Your task to perform on an android device: Open Android settings Image 0: 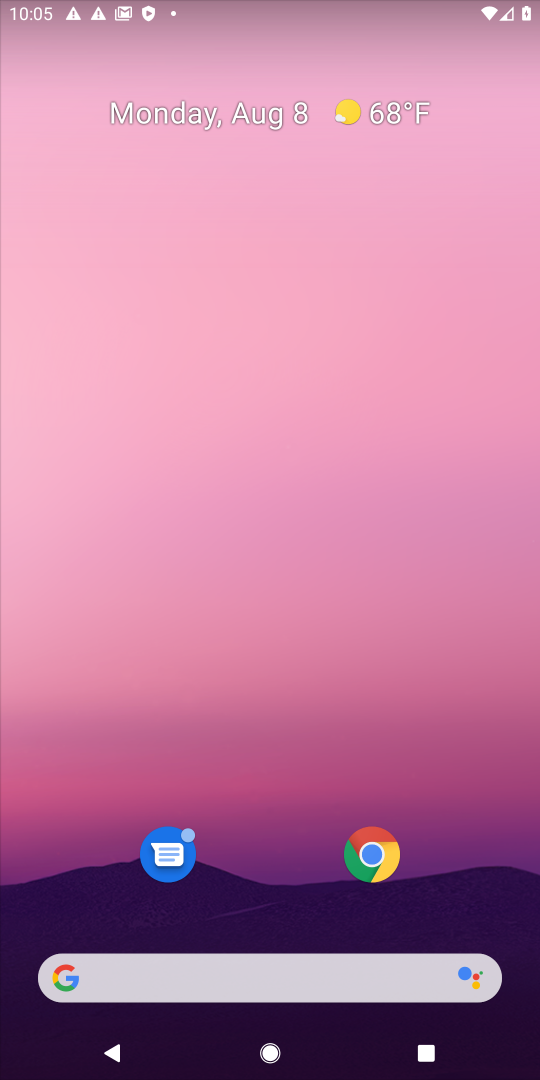
Step 0: drag from (308, 774) to (291, 326)
Your task to perform on an android device: Open Android settings Image 1: 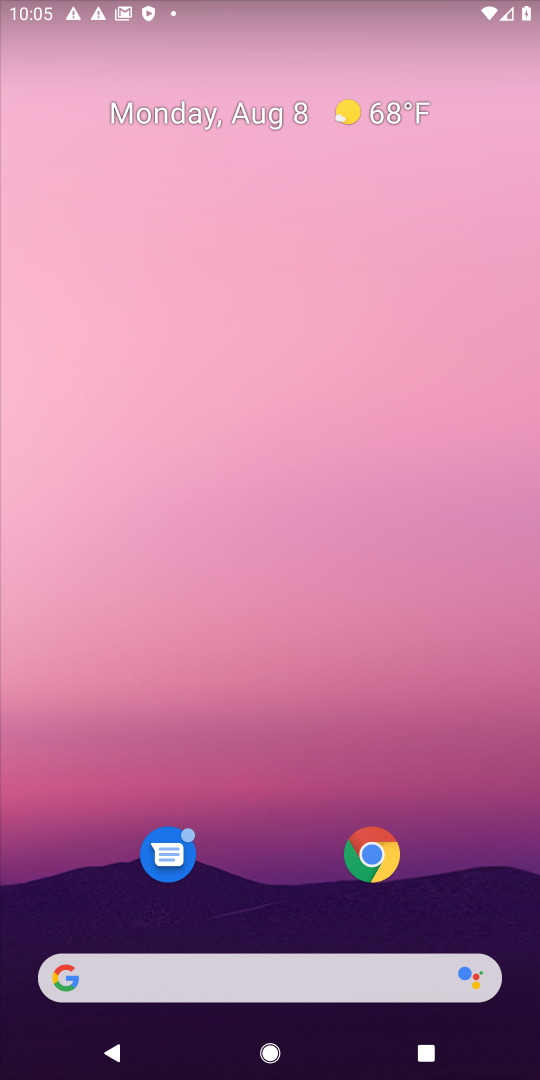
Step 1: drag from (239, 714) to (269, 294)
Your task to perform on an android device: Open Android settings Image 2: 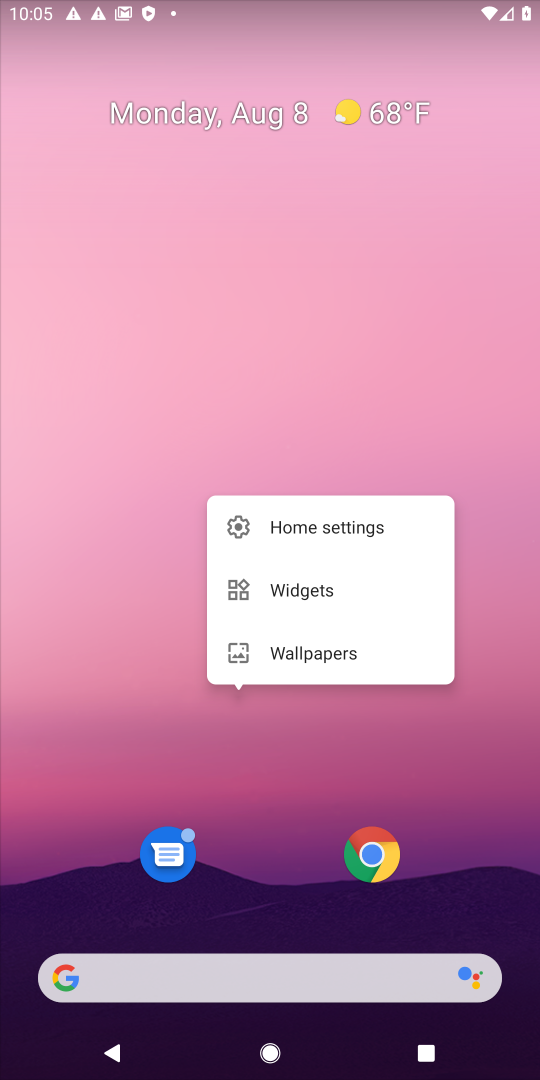
Step 2: click (294, 757)
Your task to perform on an android device: Open Android settings Image 3: 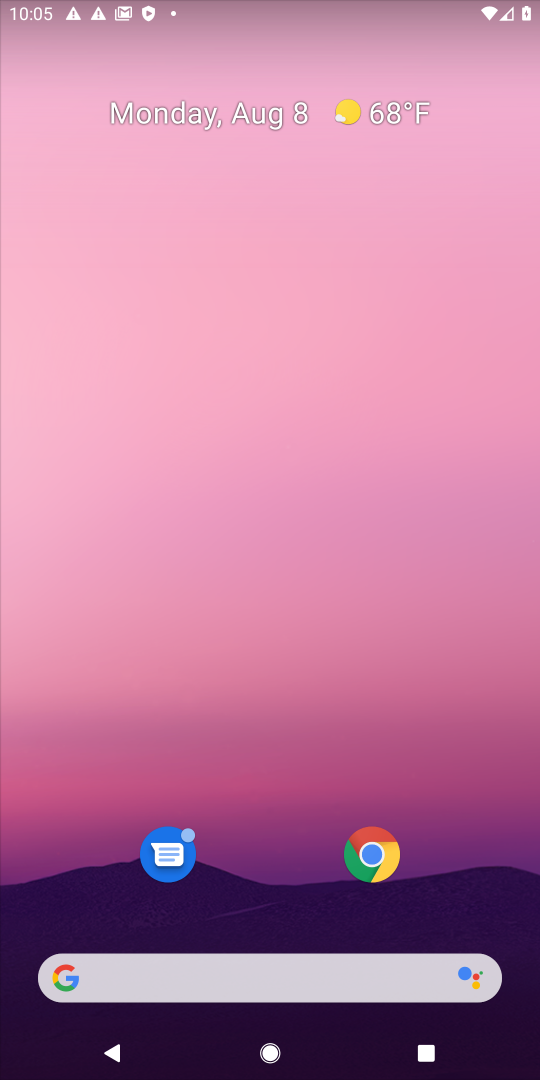
Step 3: drag from (294, 720) to (270, 158)
Your task to perform on an android device: Open Android settings Image 4: 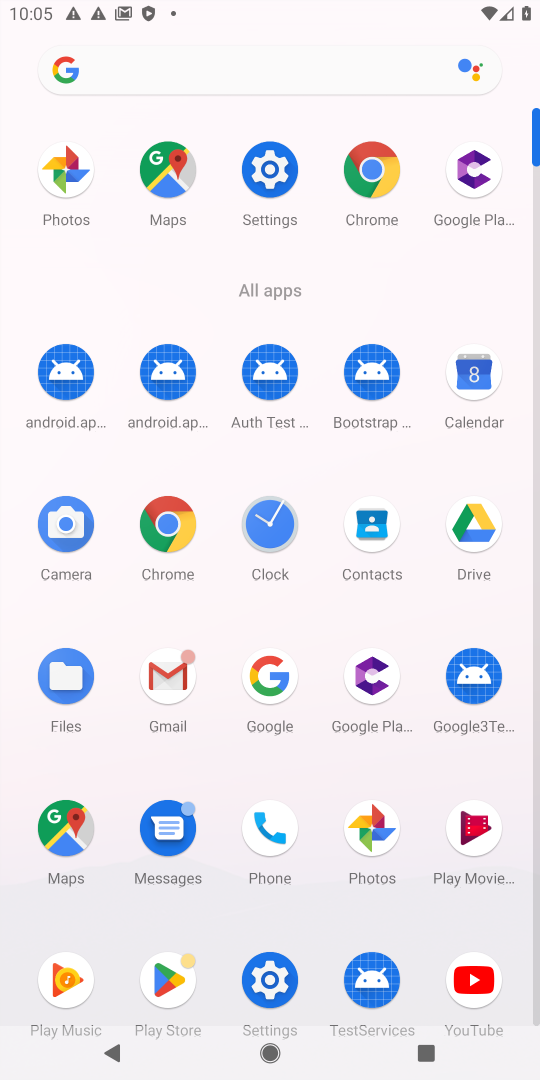
Step 4: click (264, 982)
Your task to perform on an android device: Open Android settings Image 5: 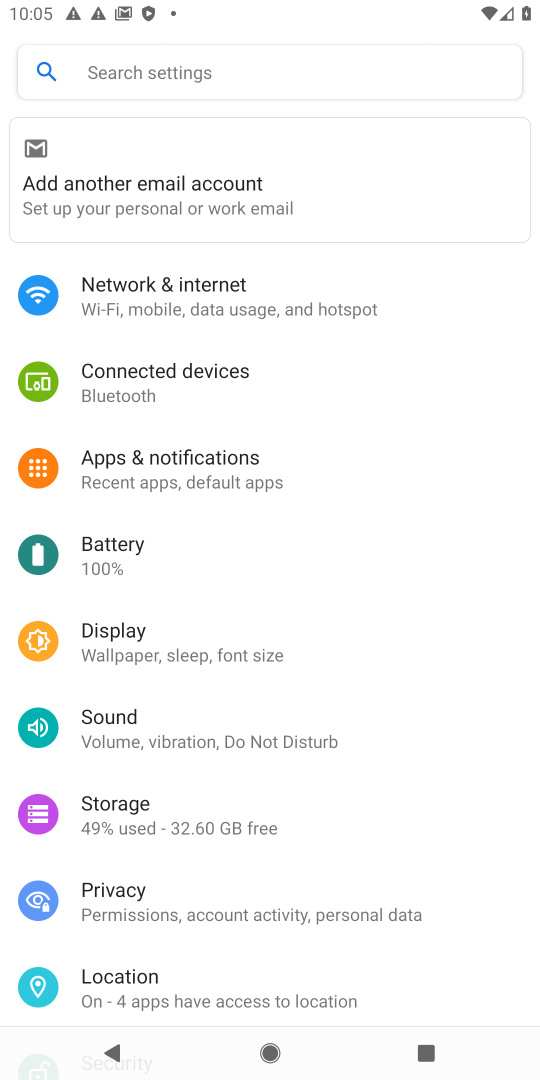
Step 5: task complete